Your task to perform on an android device: change alarm snooze length Image 0: 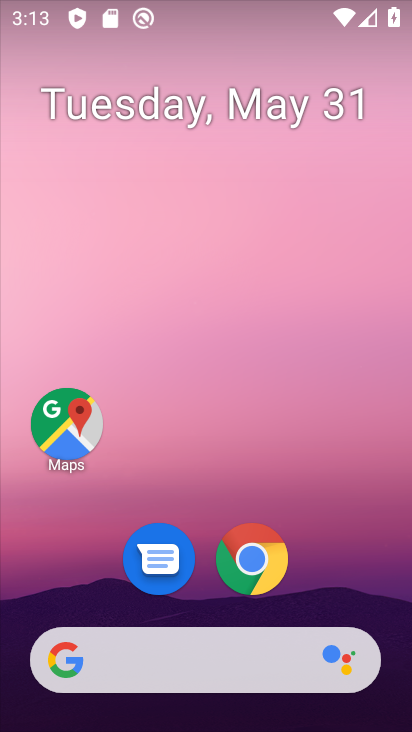
Step 0: drag from (245, 707) to (249, 85)
Your task to perform on an android device: change alarm snooze length Image 1: 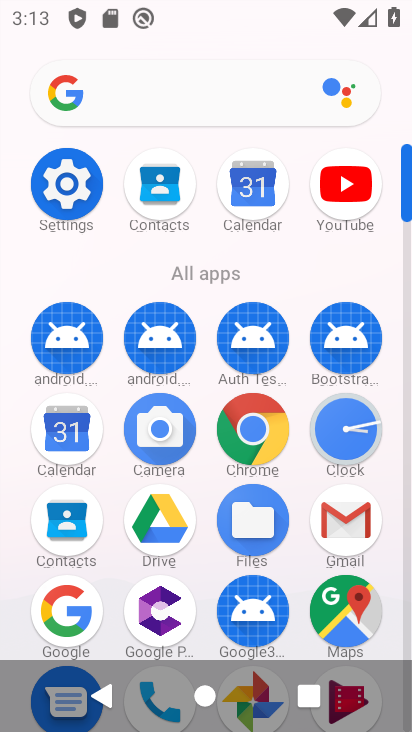
Step 1: click (348, 446)
Your task to perform on an android device: change alarm snooze length Image 2: 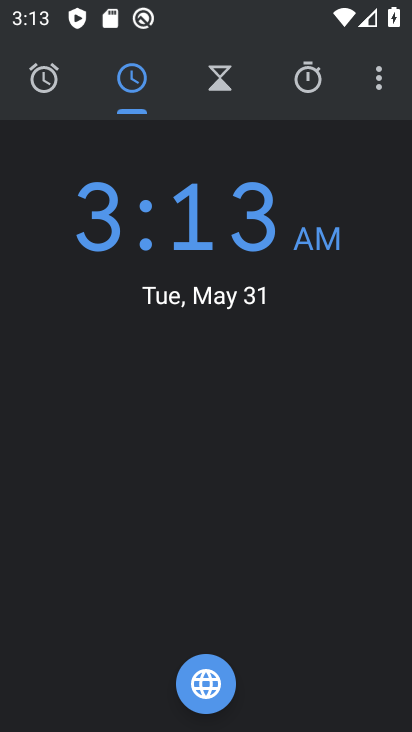
Step 2: click (384, 87)
Your task to perform on an android device: change alarm snooze length Image 3: 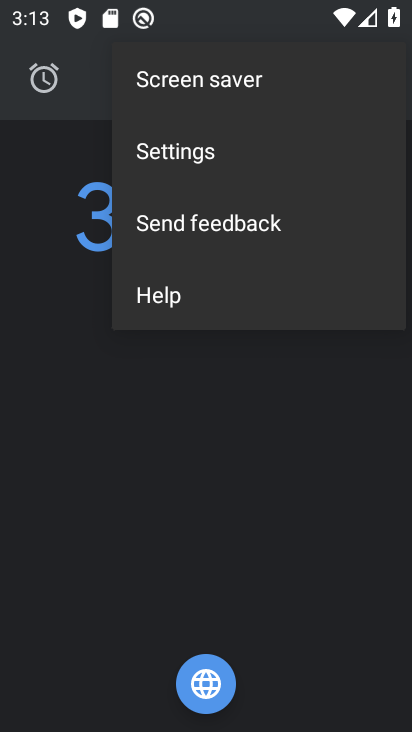
Step 3: click (186, 149)
Your task to perform on an android device: change alarm snooze length Image 4: 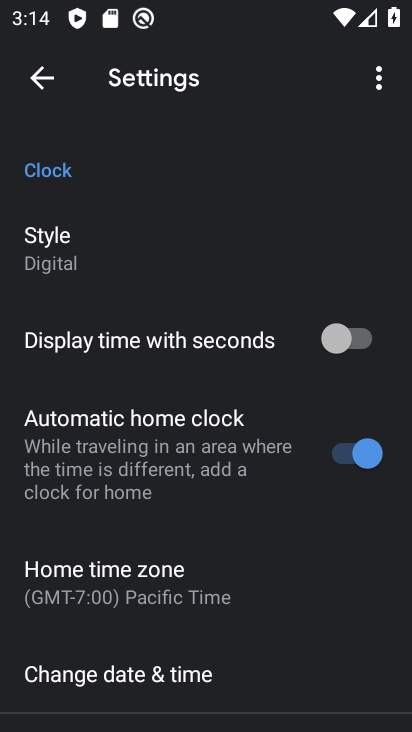
Step 4: drag from (118, 643) to (118, 293)
Your task to perform on an android device: change alarm snooze length Image 5: 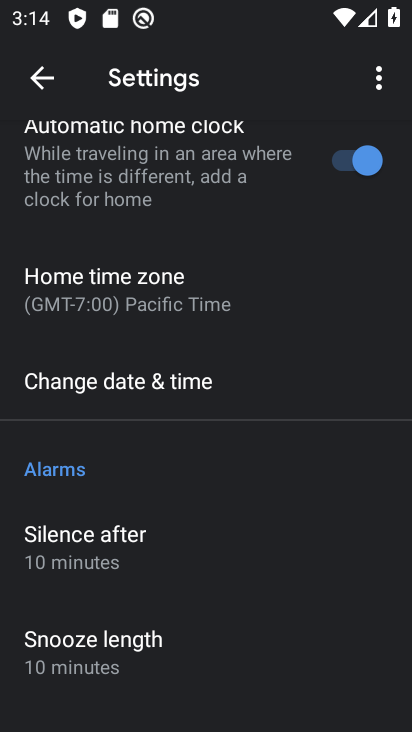
Step 5: click (114, 632)
Your task to perform on an android device: change alarm snooze length Image 6: 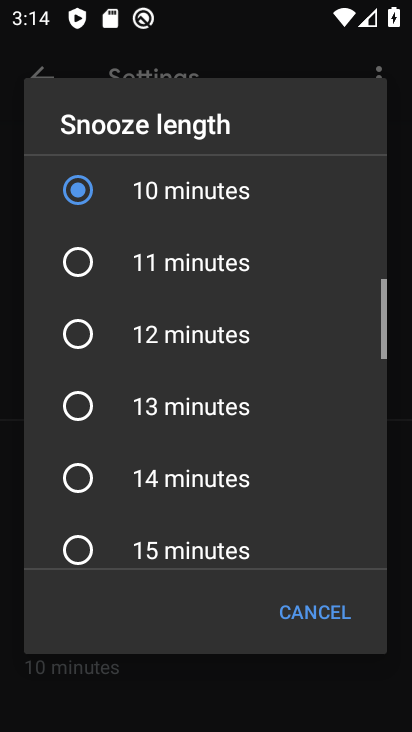
Step 6: click (73, 480)
Your task to perform on an android device: change alarm snooze length Image 7: 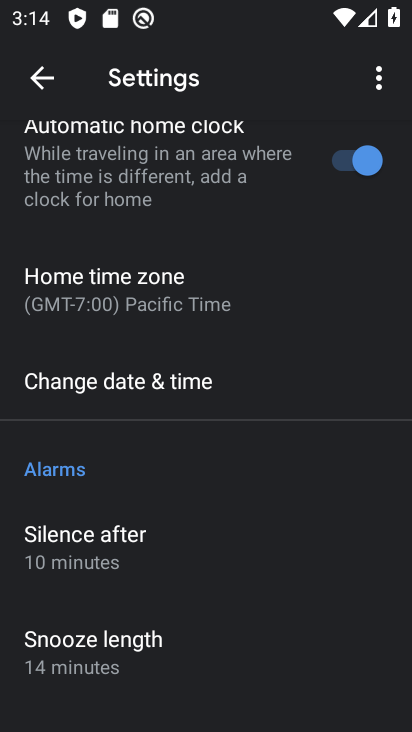
Step 7: task complete